Your task to perform on an android device: delete the emails in spam in the gmail app Image 0: 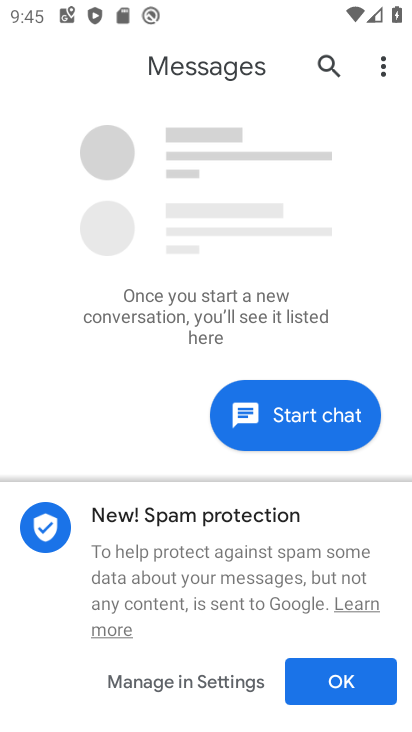
Step 0: press home button
Your task to perform on an android device: delete the emails in spam in the gmail app Image 1: 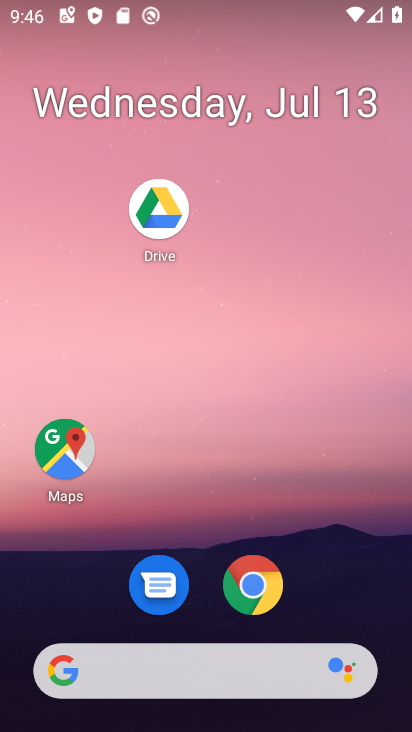
Step 1: drag from (178, 687) to (312, 139)
Your task to perform on an android device: delete the emails in spam in the gmail app Image 2: 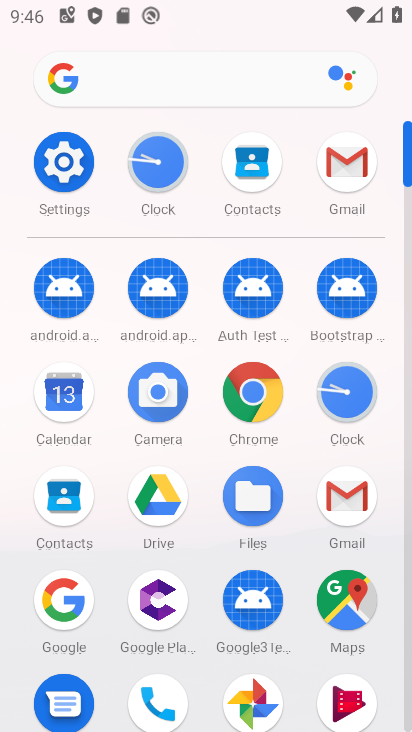
Step 2: click (348, 165)
Your task to perform on an android device: delete the emails in spam in the gmail app Image 3: 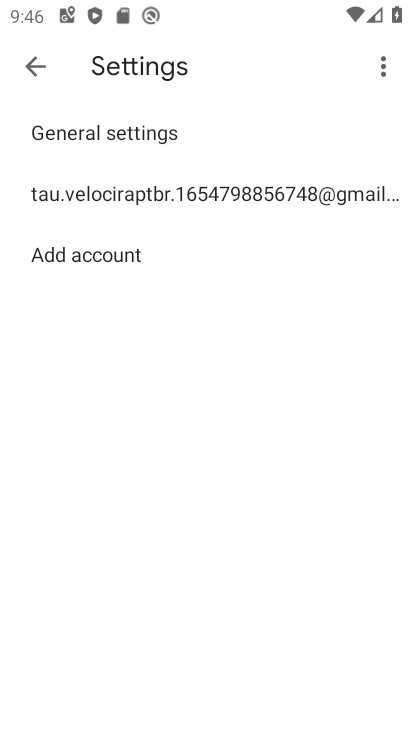
Step 3: click (40, 69)
Your task to perform on an android device: delete the emails in spam in the gmail app Image 4: 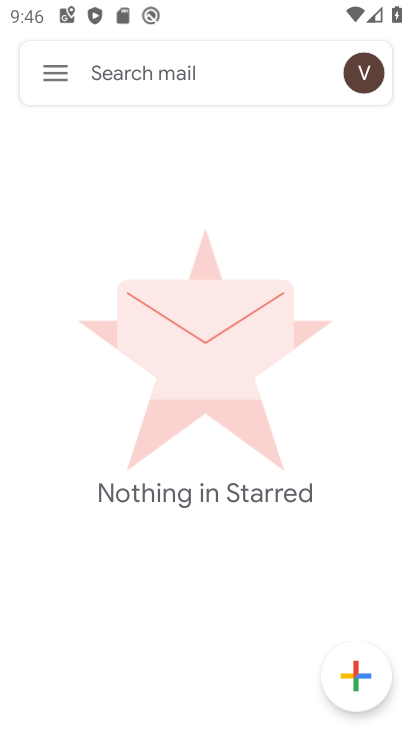
Step 4: click (48, 70)
Your task to perform on an android device: delete the emails in spam in the gmail app Image 5: 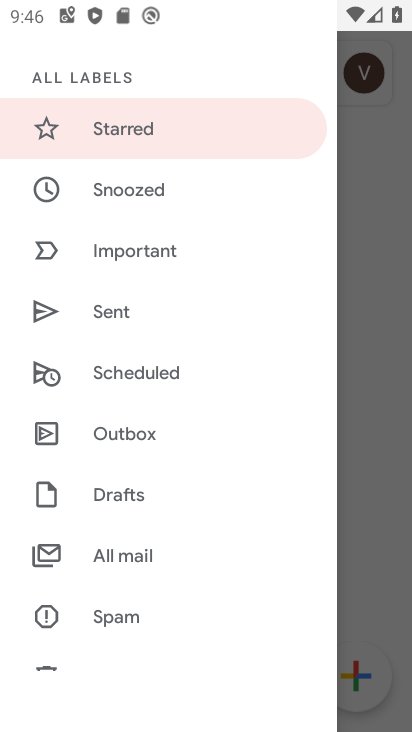
Step 5: click (108, 620)
Your task to perform on an android device: delete the emails in spam in the gmail app Image 6: 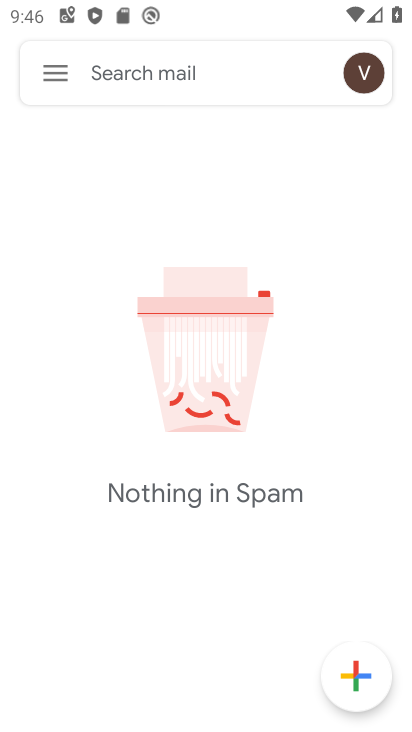
Step 6: task complete